Your task to perform on an android device: Open Youtube and go to the subscriptions tab Image 0: 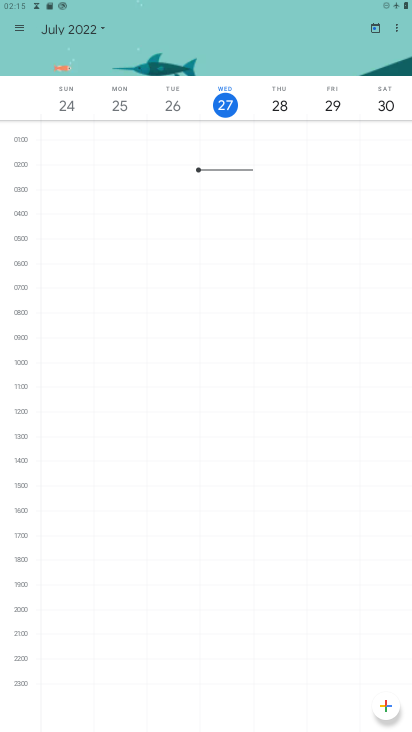
Step 0: press home button
Your task to perform on an android device: Open Youtube and go to the subscriptions tab Image 1: 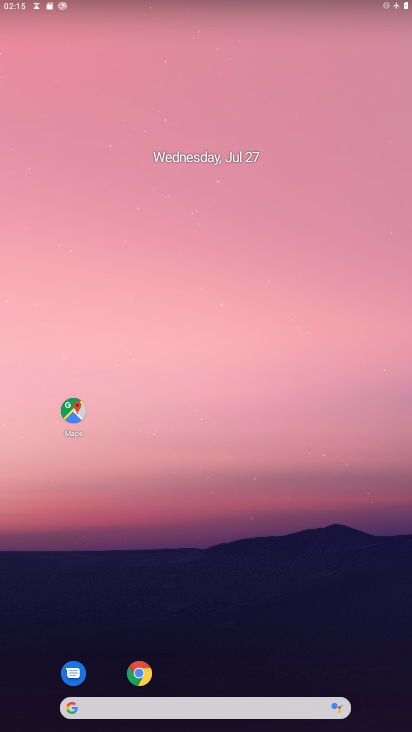
Step 1: drag from (305, 677) to (334, 220)
Your task to perform on an android device: Open Youtube and go to the subscriptions tab Image 2: 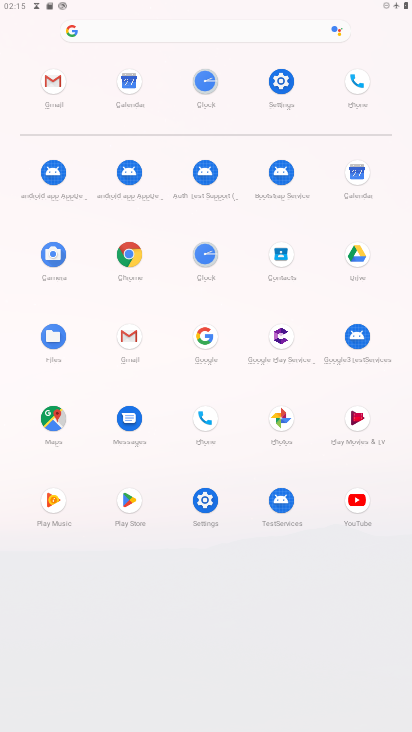
Step 2: click (359, 505)
Your task to perform on an android device: Open Youtube and go to the subscriptions tab Image 3: 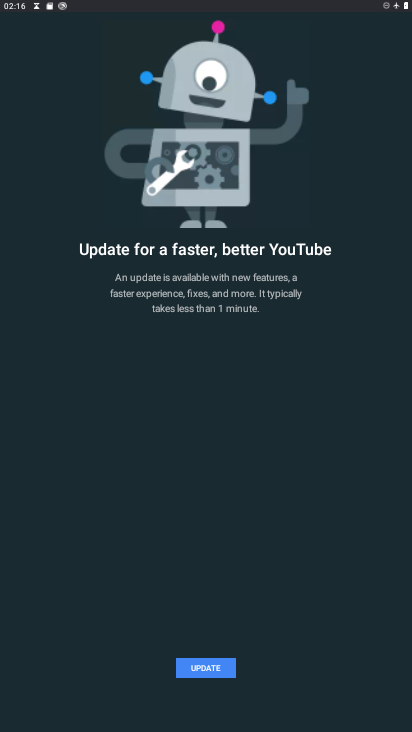
Step 3: task complete